Your task to perform on an android device: What's the weather? Image 0: 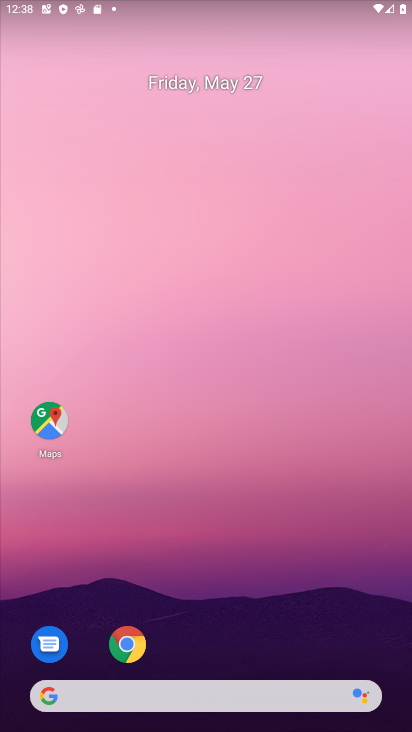
Step 0: drag from (309, 645) to (253, 33)
Your task to perform on an android device: What's the weather? Image 1: 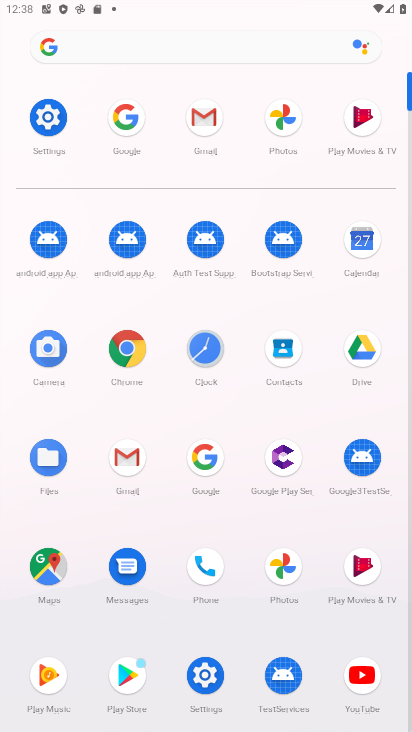
Step 1: click (115, 127)
Your task to perform on an android device: What's the weather? Image 2: 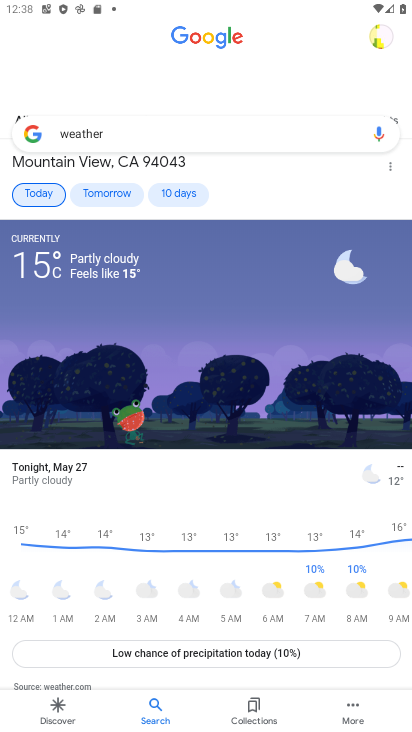
Step 2: task complete